Your task to perform on an android device: turn on location history Image 0: 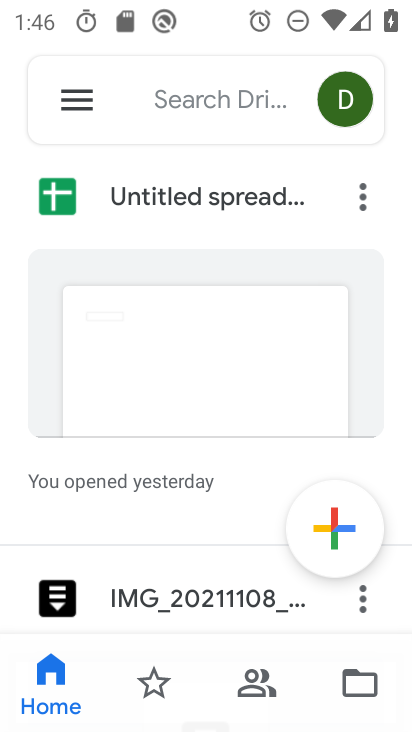
Step 0: press home button
Your task to perform on an android device: turn on location history Image 1: 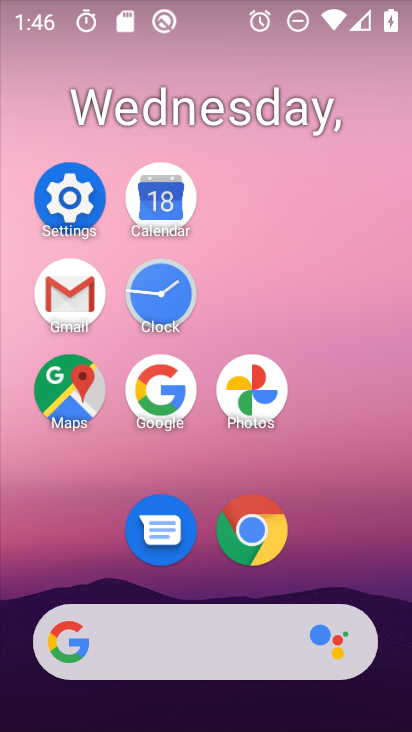
Step 1: click (77, 188)
Your task to perform on an android device: turn on location history Image 2: 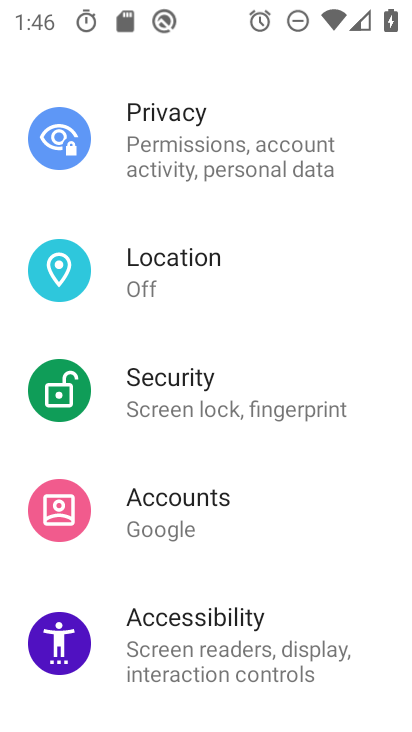
Step 2: drag from (217, 575) to (296, 171)
Your task to perform on an android device: turn on location history Image 3: 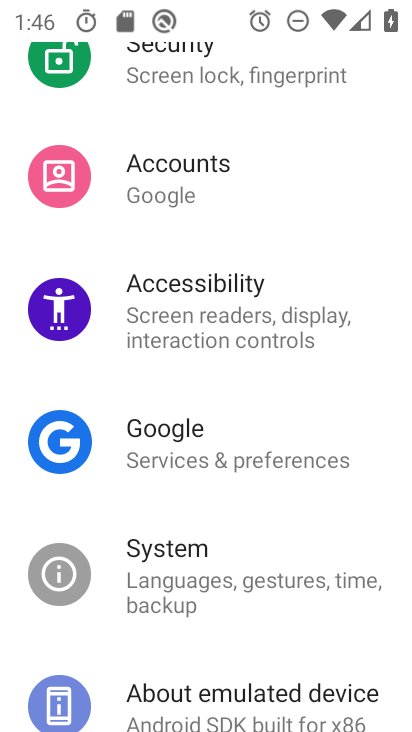
Step 3: drag from (221, 637) to (254, 213)
Your task to perform on an android device: turn on location history Image 4: 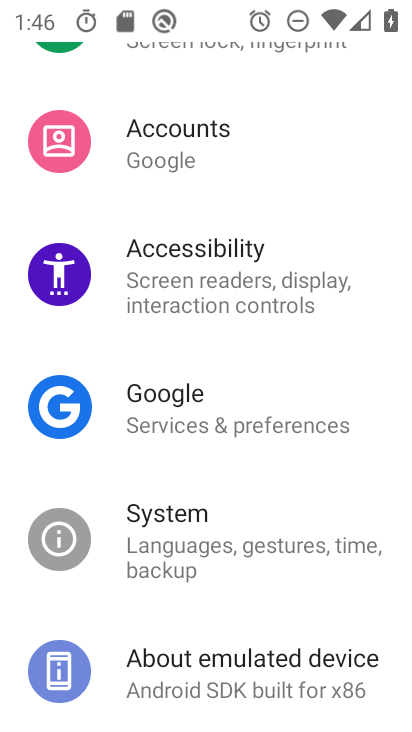
Step 4: drag from (309, 212) to (288, 663)
Your task to perform on an android device: turn on location history Image 5: 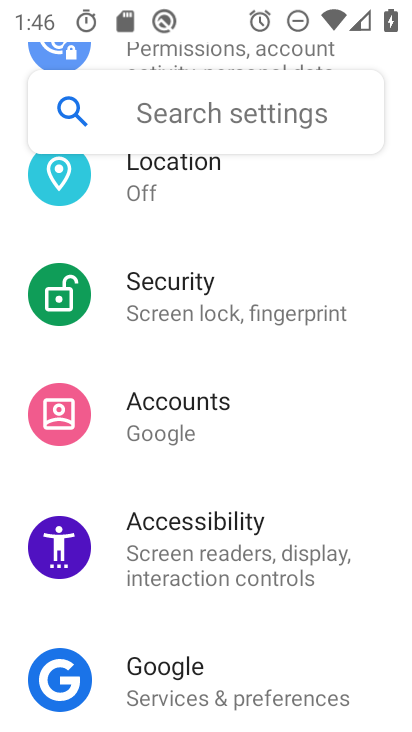
Step 5: click (265, 193)
Your task to perform on an android device: turn on location history Image 6: 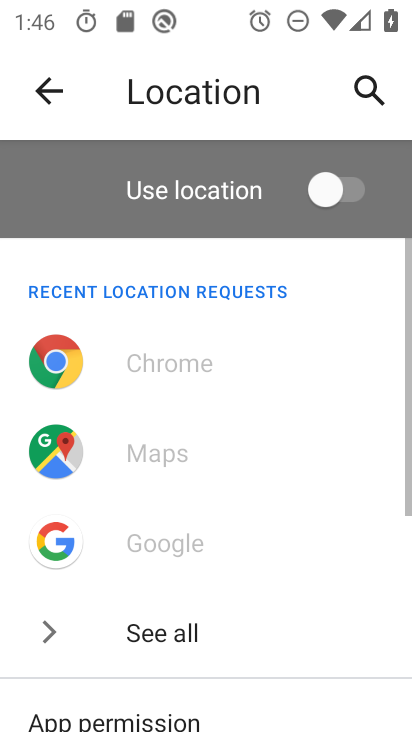
Step 6: drag from (243, 619) to (248, 150)
Your task to perform on an android device: turn on location history Image 7: 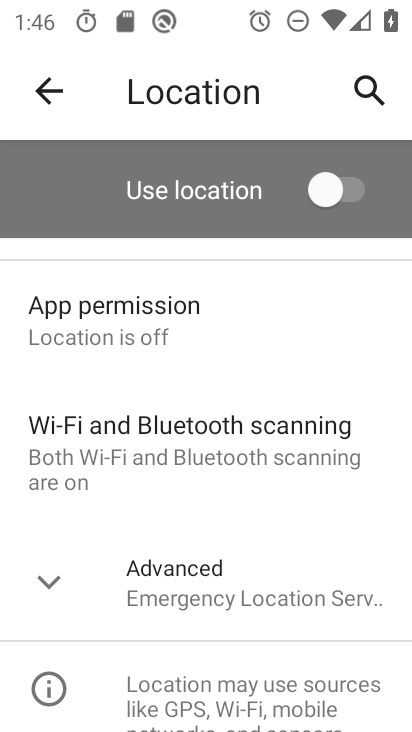
Step 7: click (246, 611)
Your task to perform on an android device: turn on location history Image 8: 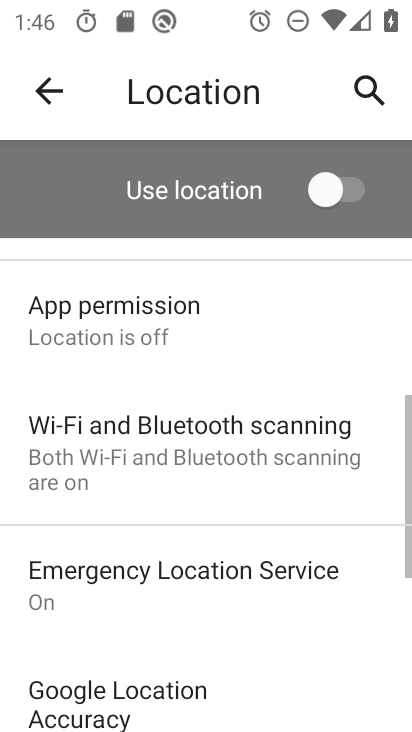
Step 8: drag from (246, 611) to (242, 237)
Your task to perform on an android device: turn on location history Image 9: 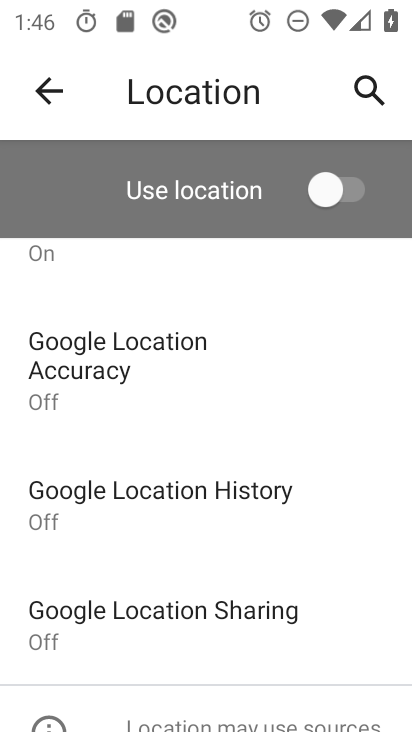
Step 9: click (267, 498)
Your task to perform on an android device: turn on location history Image 10: 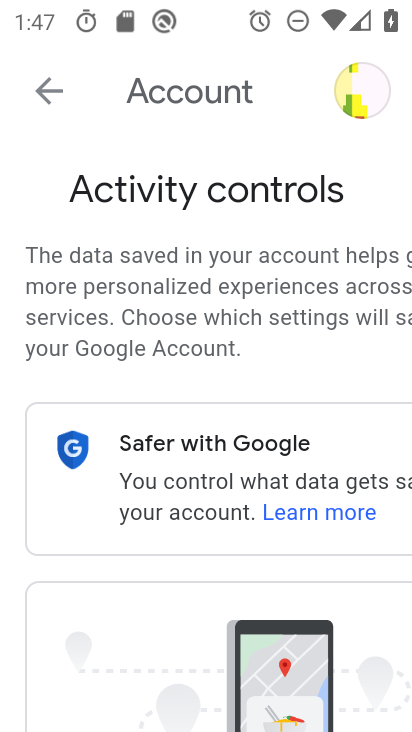
Step 10: drag from (253, 527) to (274, 74)
Your task to perform on an android device: turn on location history Image 11: 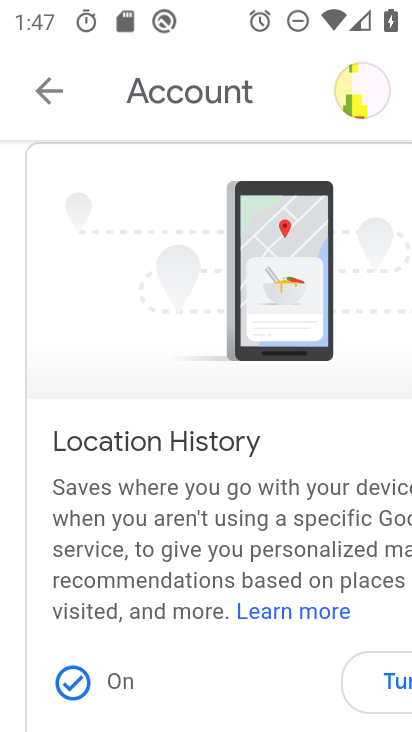
Step 11: click (371, 669)
Your task to perform on an android device: turn on location history Image 12: 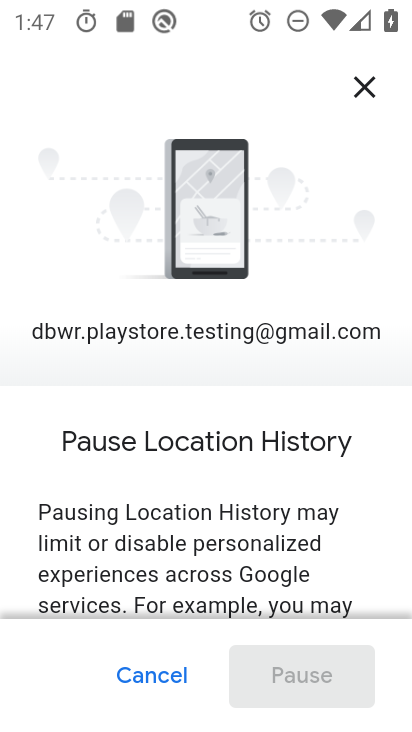
Step 12: task complete